Your task to perform on an android device: Open battery settings Image 0: 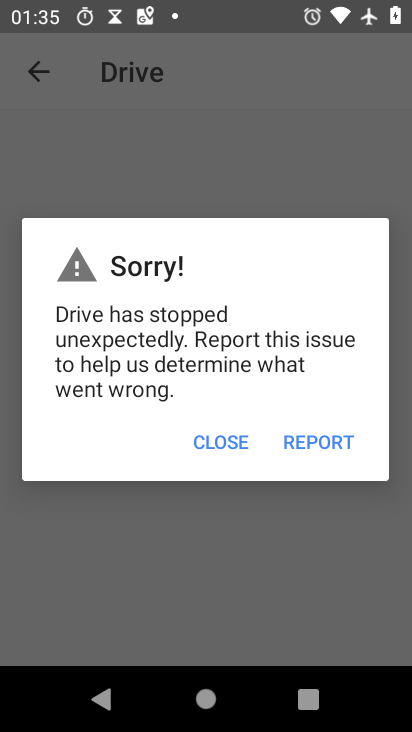
Step 0: press home button
Your task to perform on an android device: Open battery settings Image 1: 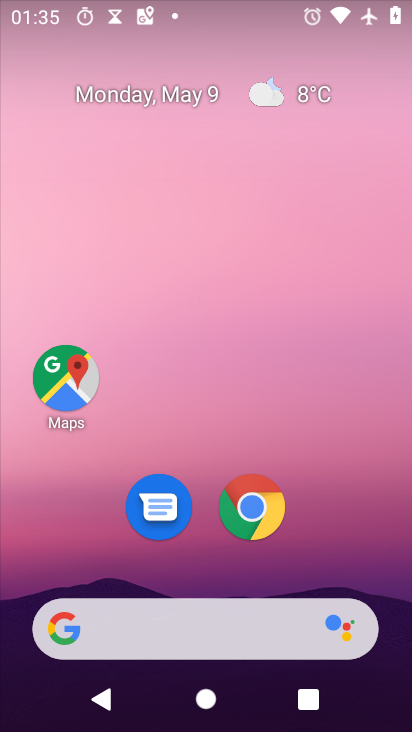
Step 1: drag from (228, 713) to (228, 34)
Your task to perform on an android device: Open battery settings Image 2: 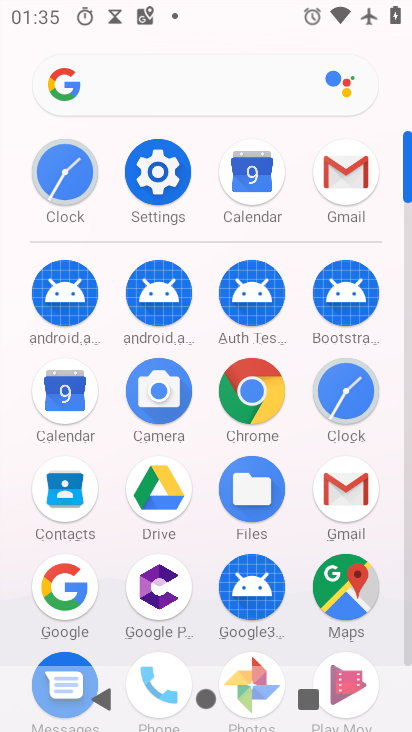
Step 2: click (153, 155)
Your task to perform on an android device: Open battery settings Image 3: 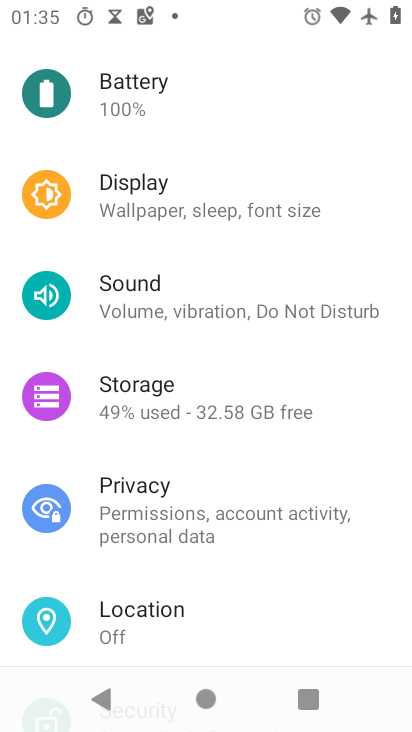
Step 3: click (126, 86)
Your task to perform on an android device: Open battery settings Image 4: 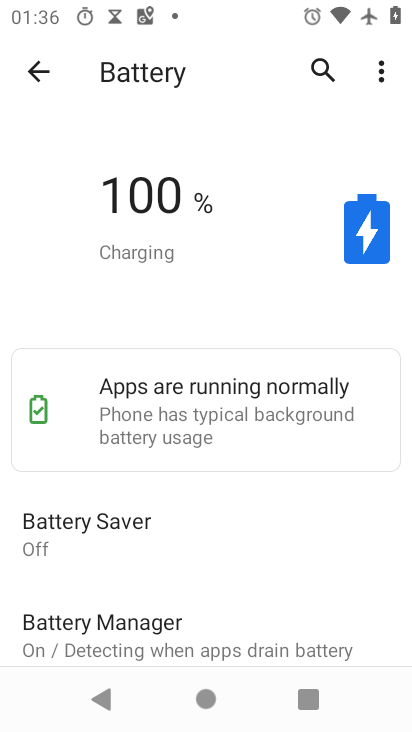
Step 4: task complete